Your task to perform on an android device: open a bookmark in the chrome app Image 0: 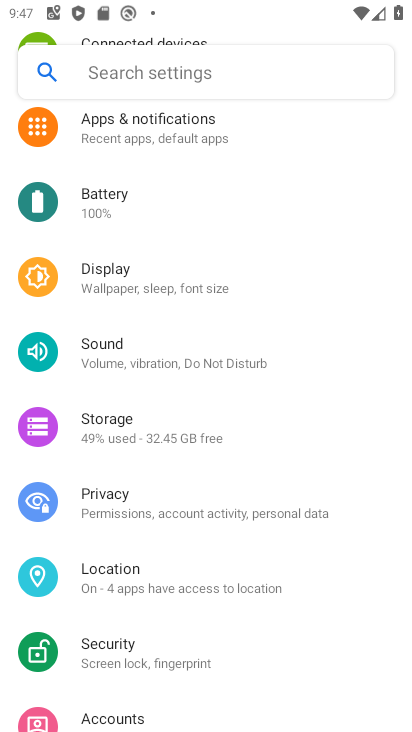
Step 0: press home button
Your task to perform on an android device: open a bookmark in the chrome app Image 1: 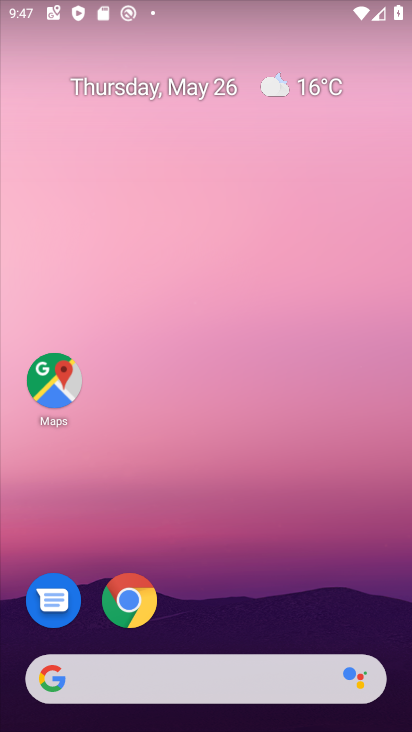
Step 1: click (128, 593)
Your task to perform on an android device: open a bookmark in the chrome app Image 2: 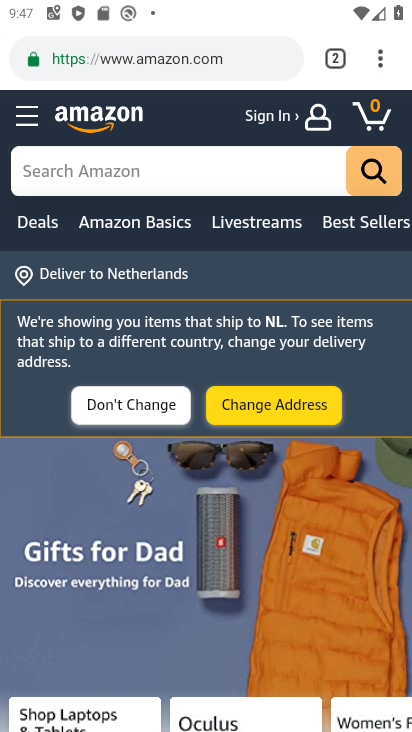
Step 2: click (390, 57)
Your task to perform on an android device: open a bookmark in the chrome app Image 3: 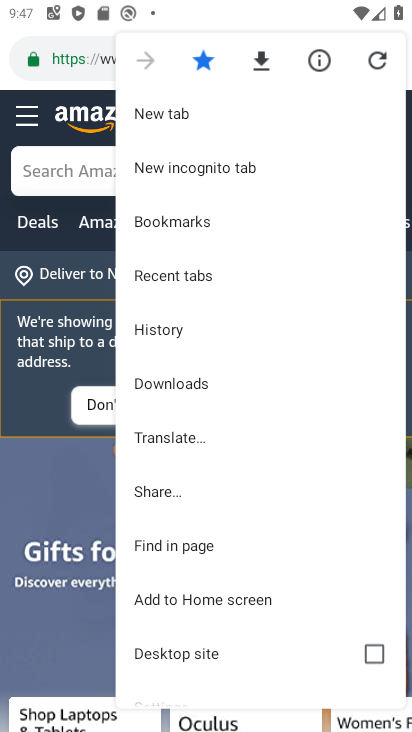
Step 3: click (203, 225)
Your task to perform on an android device: open a bookmark in the chrome app Image 4: 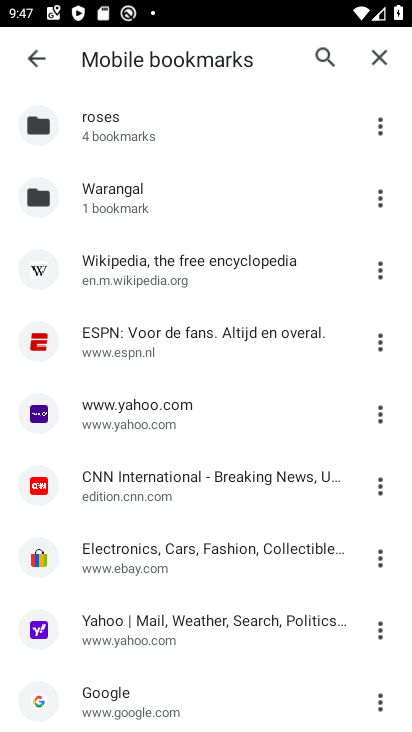
Step 4: click (204, 226)
Your task to perform on an android device: open a bookmark in the chrome app Image 5: 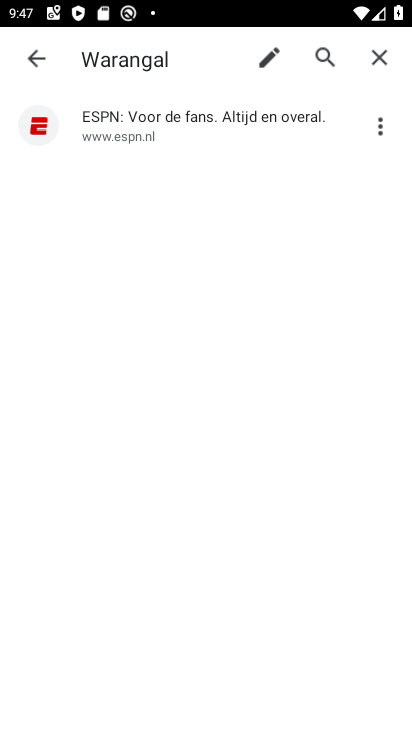
Step 5: click (170, 137)
Your task to perform on an android device: open a bookmark in the chrome app Image 6: 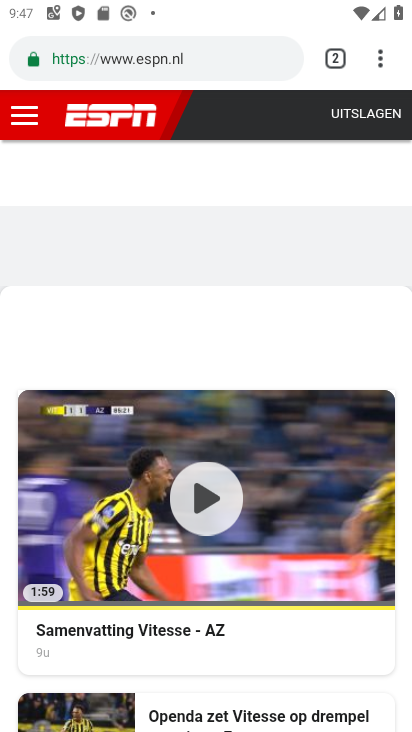
Step 6: task complete